Your task to perform on an android device: Open wifi settings Image 0: 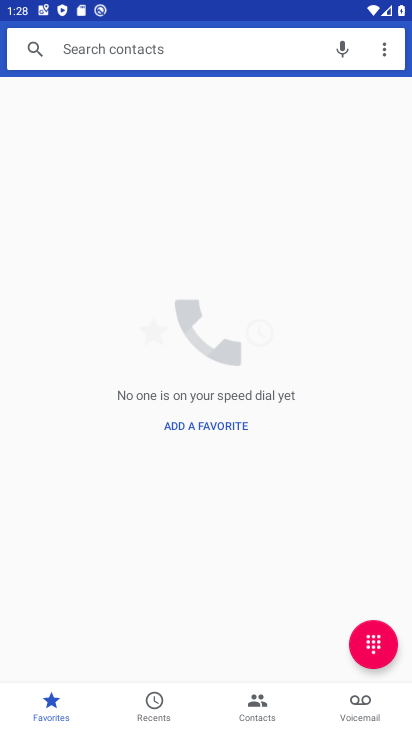
Step 0: press home button
Your task to perform on an android device: Open wifi settings Image 1: 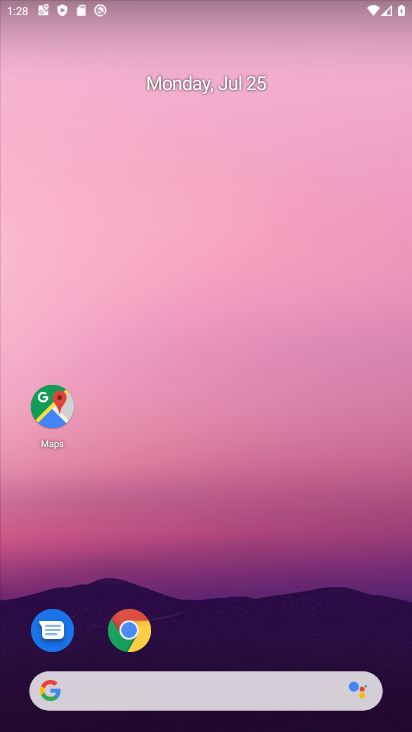
Step 1: drag from (240, 659) to (291, 94)
Your task to perform on an android device: Open wifi settings Image 2: 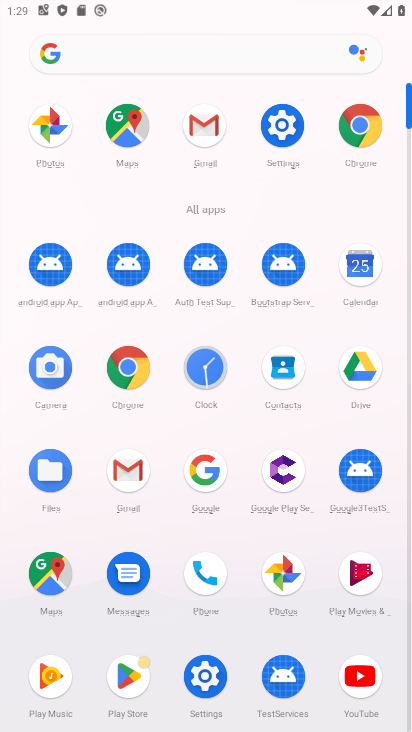
Step 2: click (279, 159)
Your task to perform on an android device: Open wifi settings Image 3: 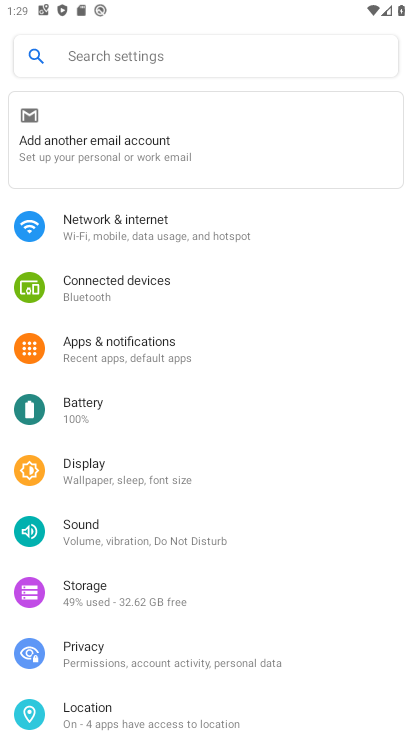
Step 3: click (225, 136)
Your task to perform on an android device: Open wifi settings Image 4: 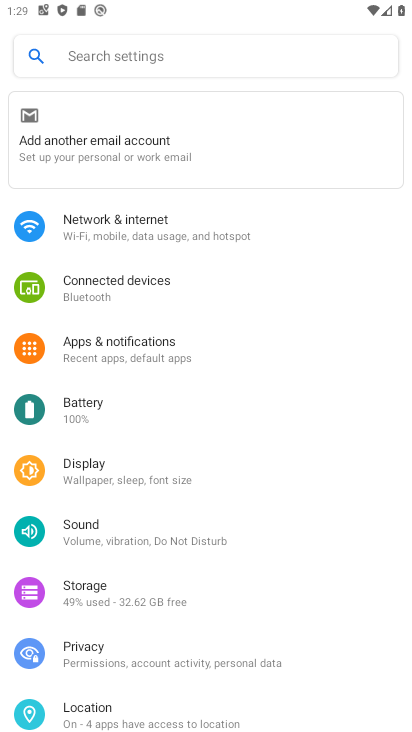
Step 4: task complete